Your task to perform on an android device: Open calendar and show me the fourth week of next month Image 0: 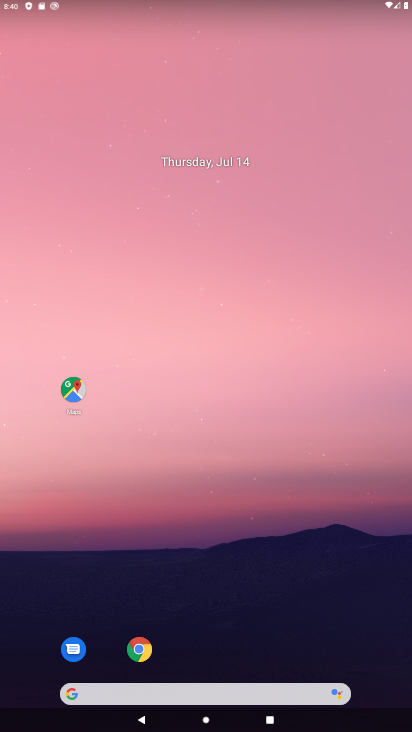
Step 0: drag from (190, 649) to (190, 230)
Your task to perform on an android device: Open calendar and show me the fourth week of next month Image 1: 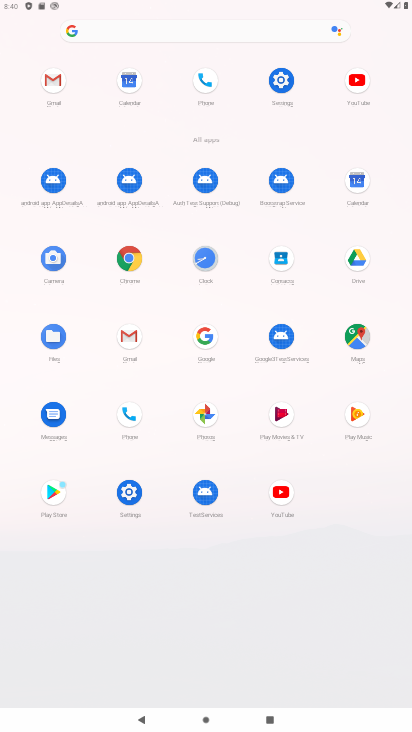
Step 1: click (347, 192)
Your task to perform on an android device: Open calendar and show me the fourth week of next month Image 2: 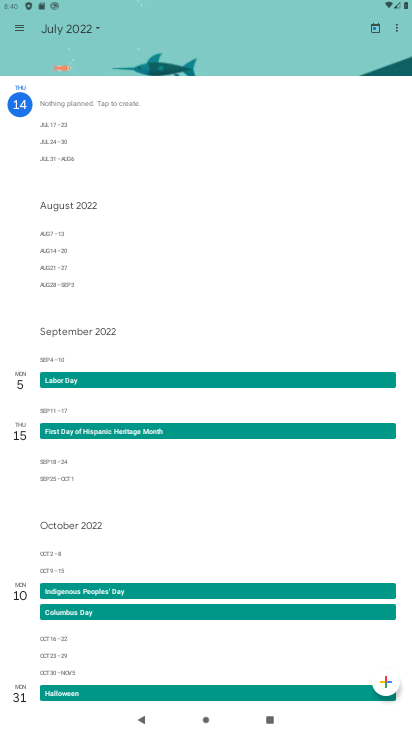
Step 2: click (101, 24)
Your task to perform on an android device: Open calendar and show me the fourth week of next month Image 3: 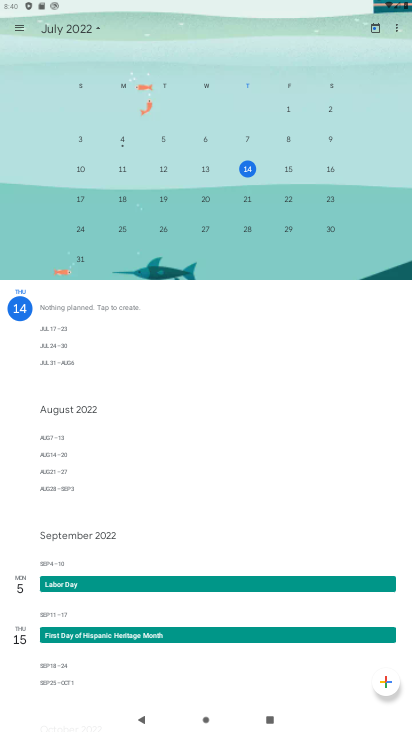
Step 3: drag from (347, 162) to (41, 156)
Your task to perform on an android device: Open calendar and show me the fourth week of next month Image 4: 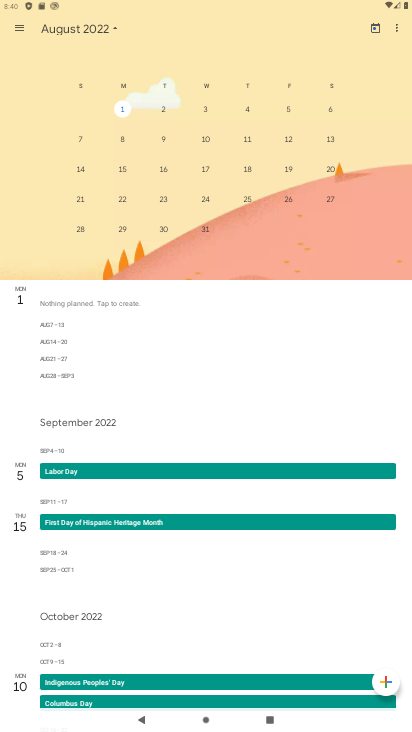
Step 4: click (85, 179)
Your task to perform on an android device: Open calendar and show me the fourth week of next month Image 5: 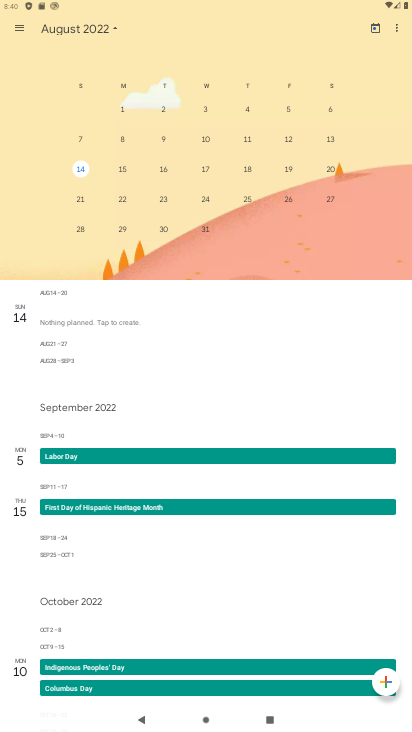
Step 5: click (87, 192)
Your task to perform on an android device: Open calendar and show me the fourth week of next month Image 6: 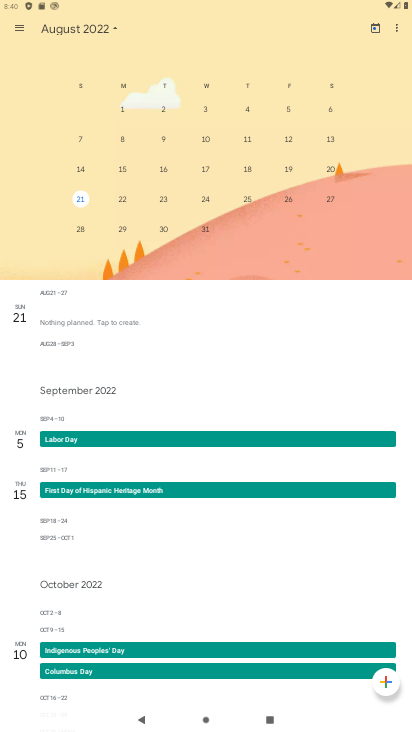
Step 6: click (113, 193)
Your task to perform on an android device: Open calendar and show me the fourth week of next month Image 7: 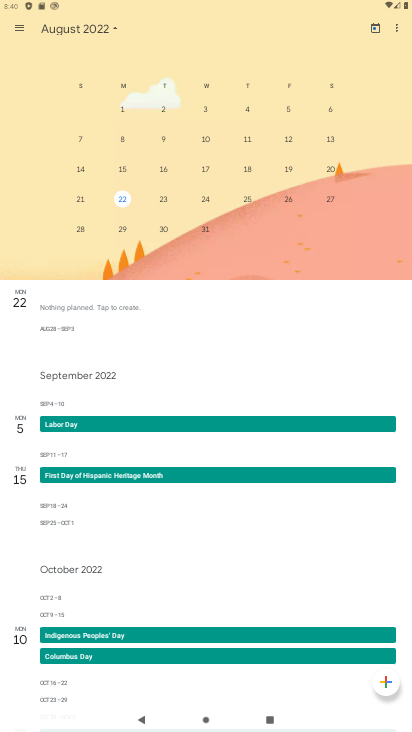
Step 7: click (73, 197)
Your task to perform on an android device: Open calendar and show me the fourth week of next month Image 8: 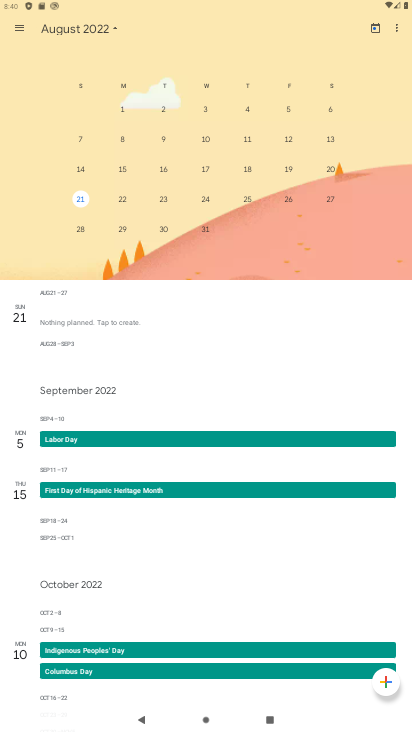
Step 8: task complete